Your task to perform on an android device: add a contact Image 0: 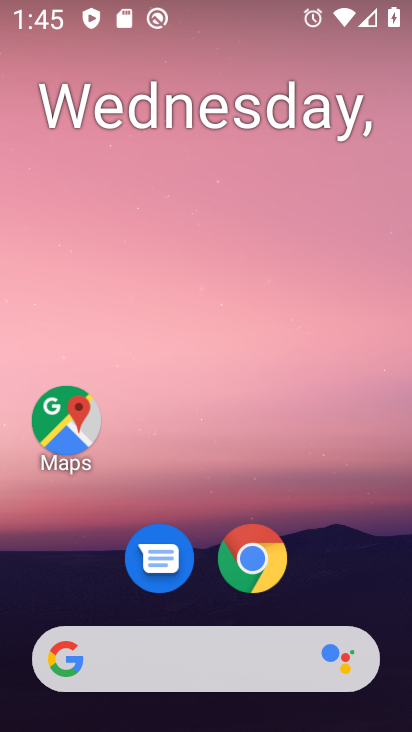
Step 0: drag from (362, 608) to (264, 212)
Your task to perform on an android device: add a contact Image 1: 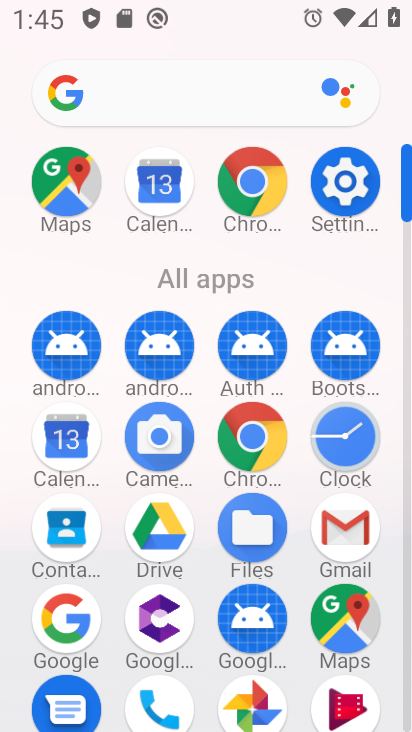
Step 1: click (75, 537)
Your task to perform on an android device: add a contact Image 2: 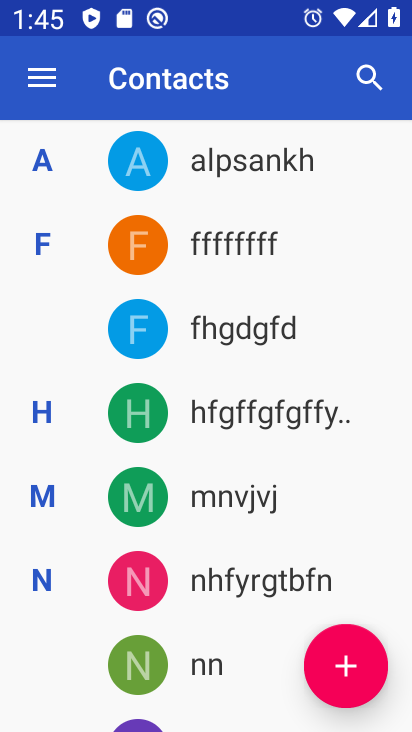
Step 2: click (364, 666)
Your task to perform on an android device: add a contact Image 3: 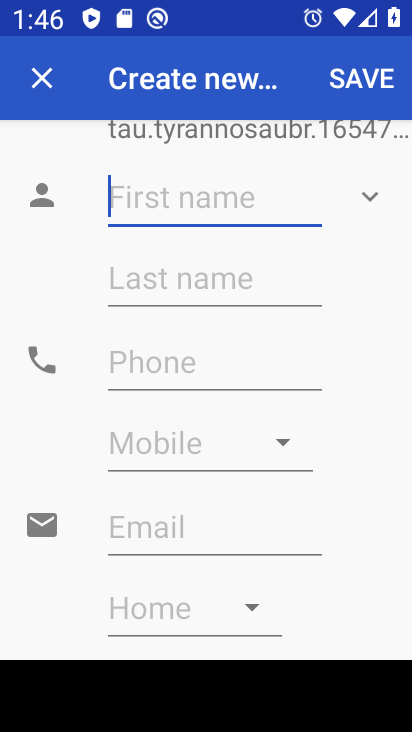
Step 3: type "chgchg"
Your task to perform on an android device: add a contact Image 4: 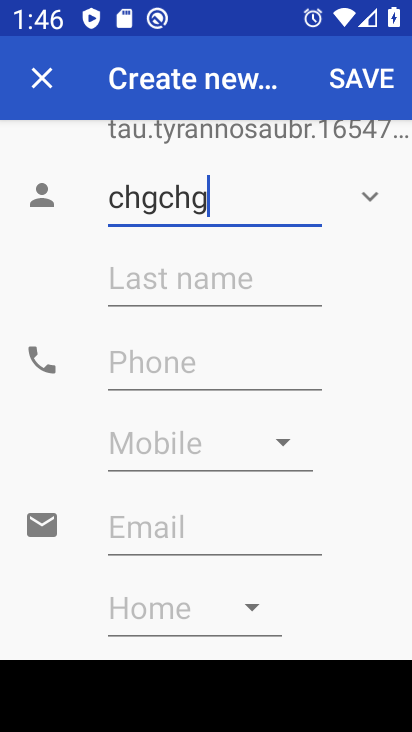
Step 4: click (284, 373)
Your task to perform on an android device: add a contact Image 5: 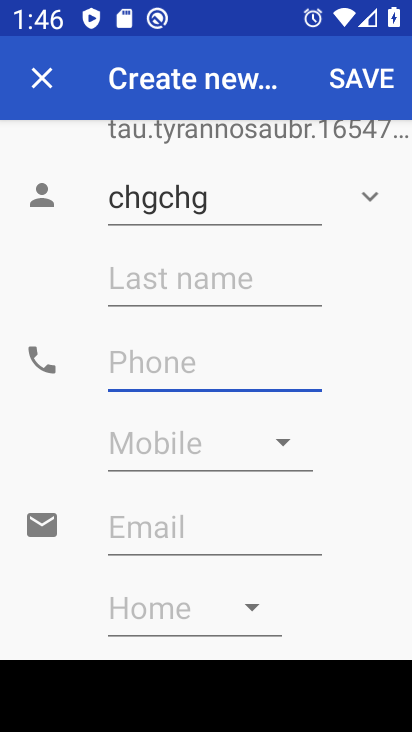
Step 5: type "y97y98789"
Your task to perform on an android device: add a contact Image 6: 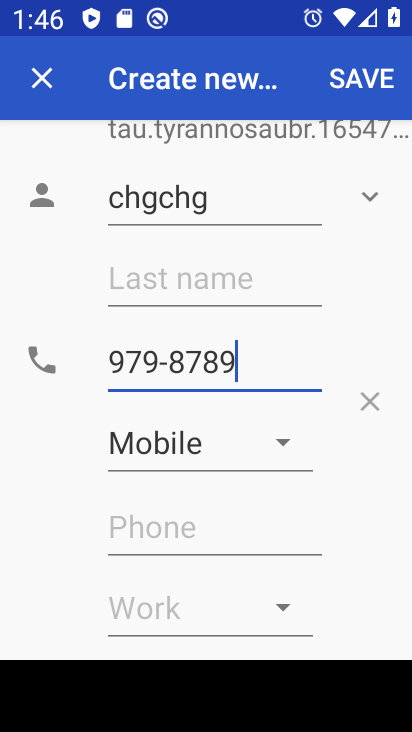
Step 6: click (361, 78)
Your task to perform on an android device: add a contact Image 7: 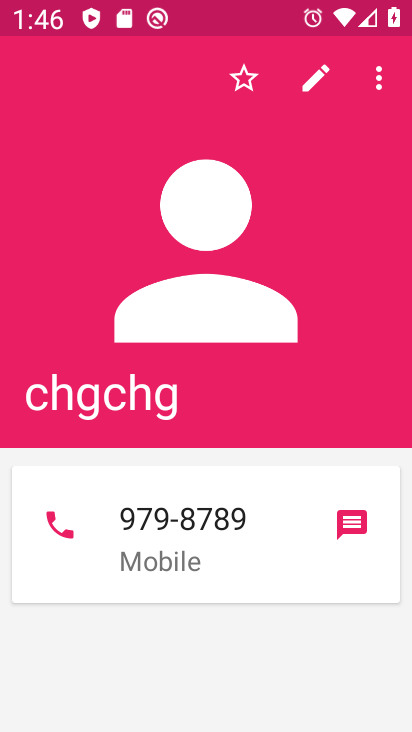
Step 7: task complete